Your task to perform on an android device: turn off notifications settings in the gmail app Image 0: 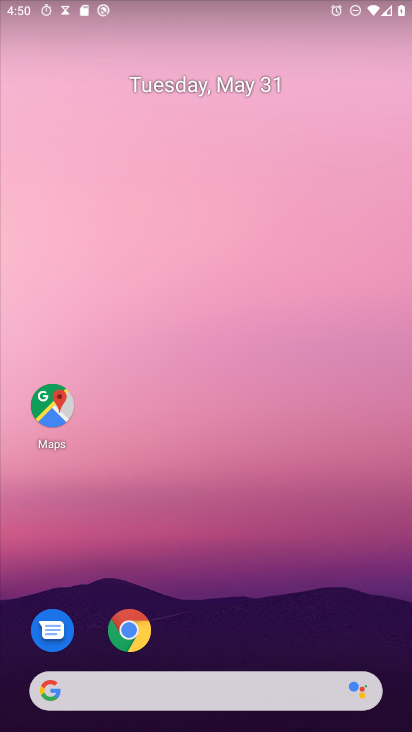
Step 0: drag from (259, 711) to (226, 5)
Your task to perform on an android device: turn off notifications settings in the gmail app Image 1: 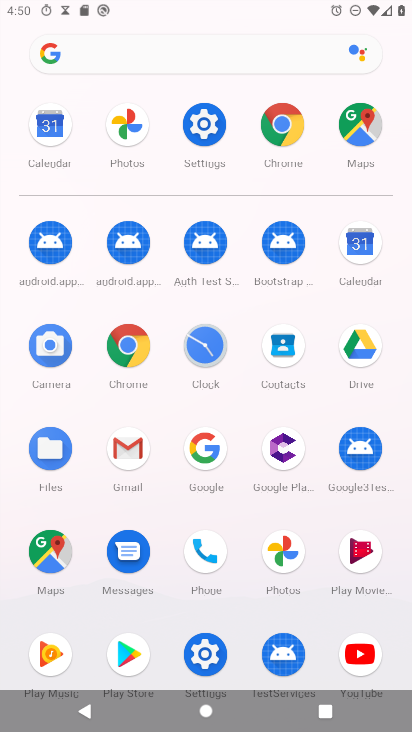
Step 1: click (110, 440)
Your task to perform on an android device: turn off notifications settings in the gmail app Image 2: 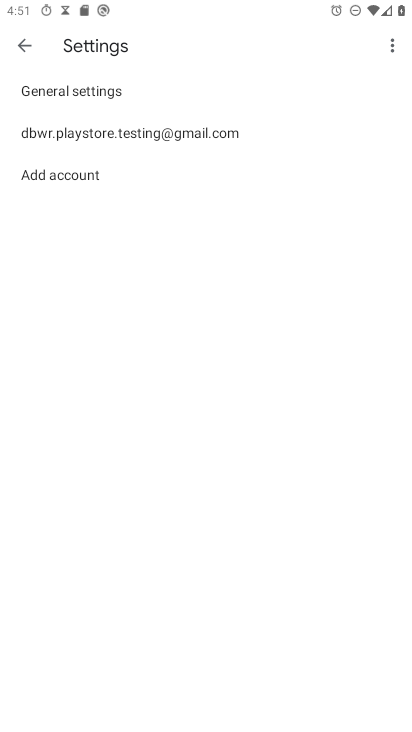
Step 2: press home button
Your task to perform on an android device: turn off notifications settings in the gmail app Image 3: 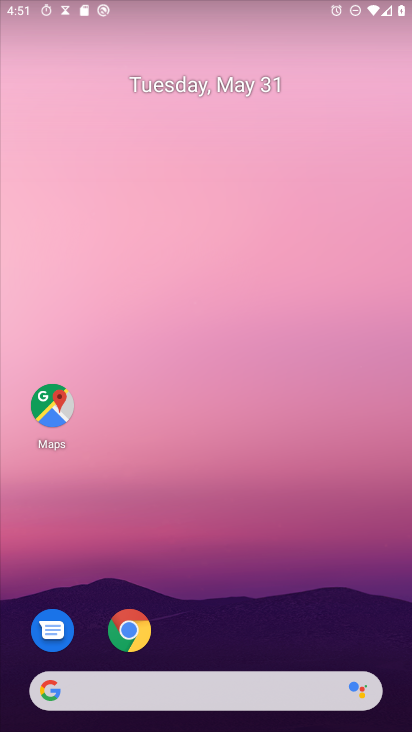
Step 3: drag from (282, 692) to (291, 2)
Your task to perform on an android device: turn off notifications settings in the gmail app Image 4: 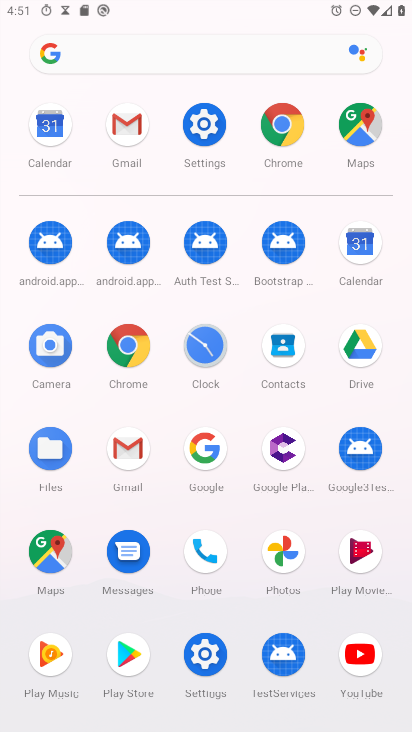
Step 4: click (123, 452)
Your task to perform on an android device: turn off notifications settings in the gmail app Image 5: 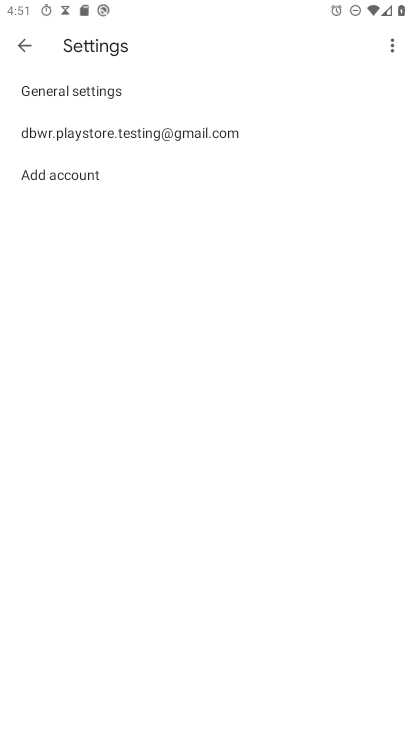
Step 5: click (165, 123)
Your task to perform on an android device: turn off notifications settings in the gmail app Image 6: 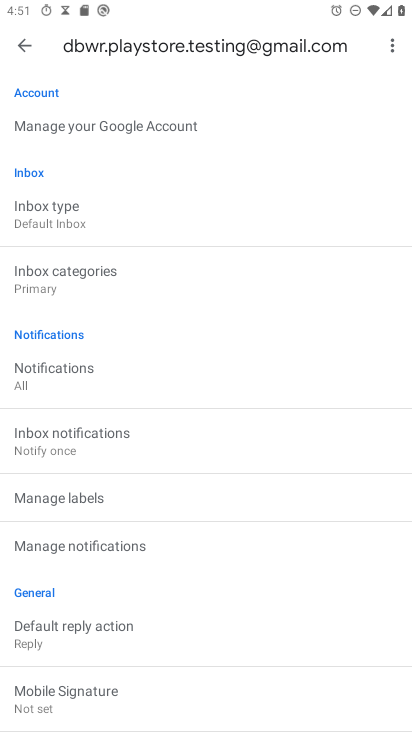
Step 6: click (149, 543)
Your task to perform on an android device: turn off notifications settings in the gmail app Image 7: 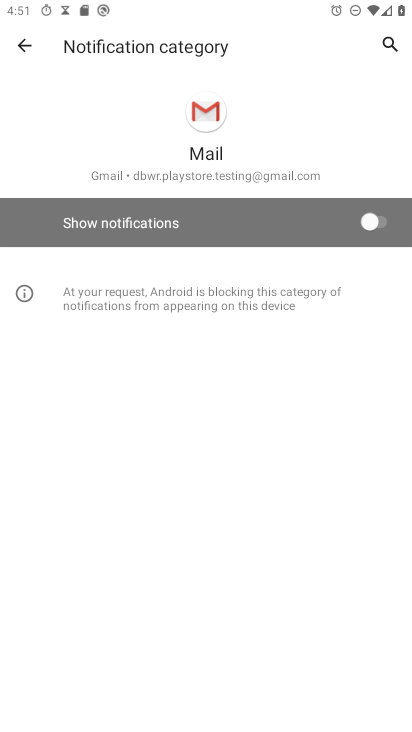
Step 7: task complete